Your task to perform on an android device: Open eBay Image 0: 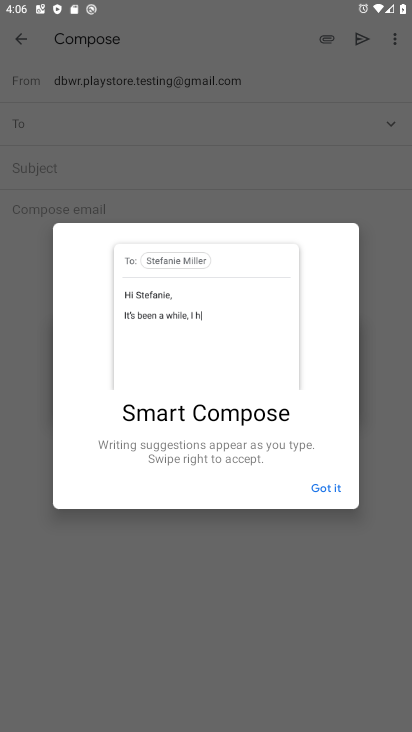
Step 0: click (327, 469)
Your task to perform on an android device: Open eBay Image 1: 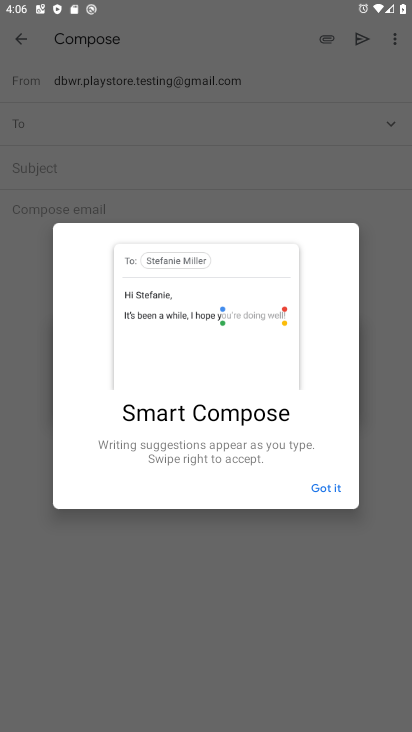
Step 1: press home button
Your task to perform on an android device: Open eBay Image 2: 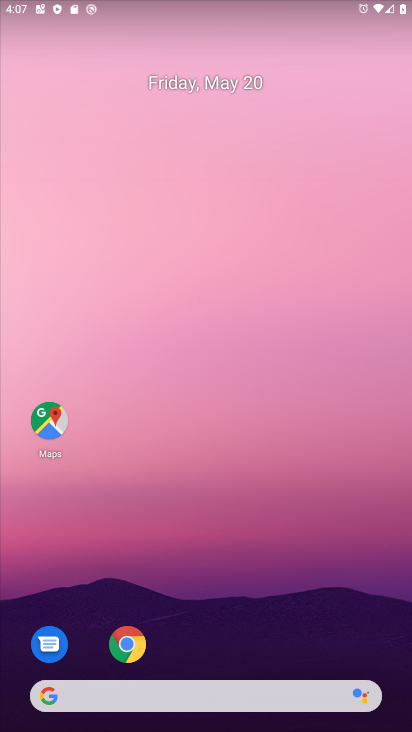
Step 2: click (132, 633)
Your task to perform on an android device: Open eBay Image 3: 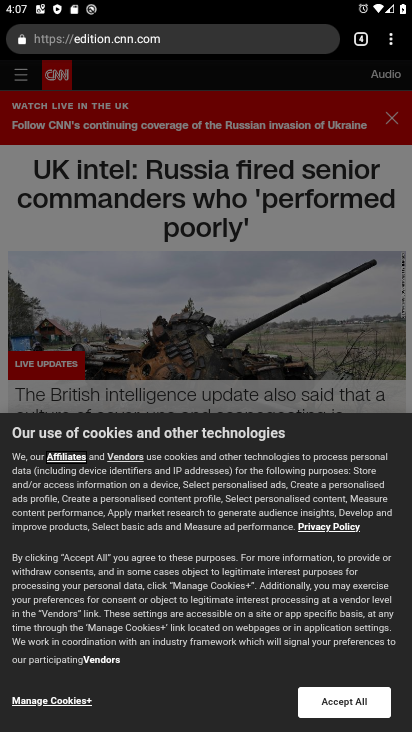
Step 3: click (248, 33)
Your task to perform on an android device: Open eBay Image 4: 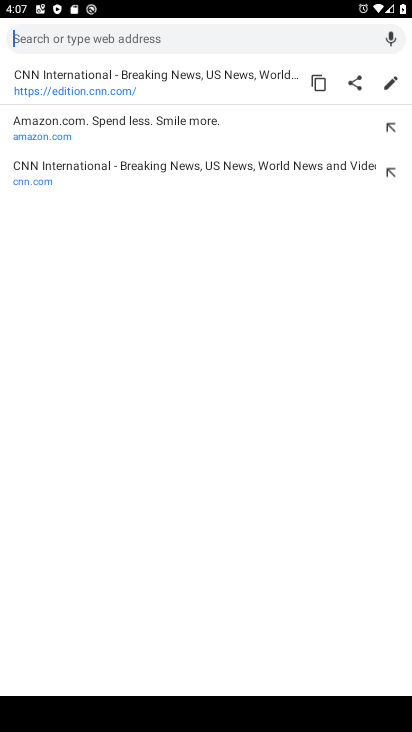
Step 4: type "ebay.com"
Your task to perform on an android device: Open eBay Image 5: 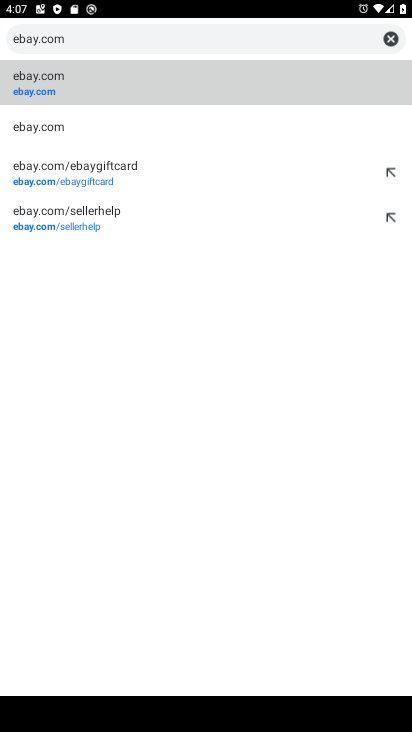
Step 5: click (126, 129)
Your task to perform on an android device: Open eBay Image 6: 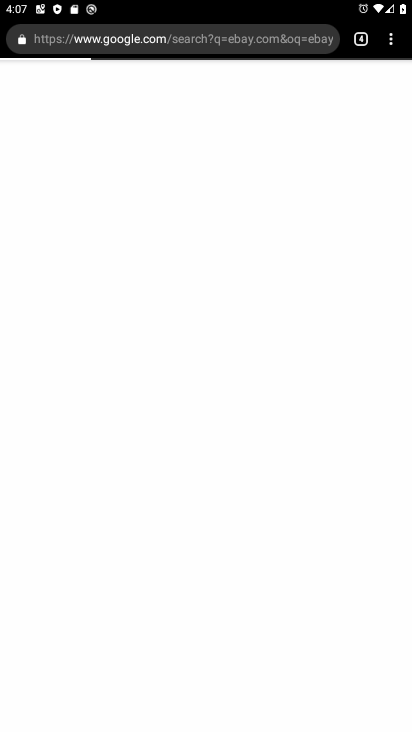
Step 6: task complete